Your task to perform on an android device: empty trash in google photos Image 0: 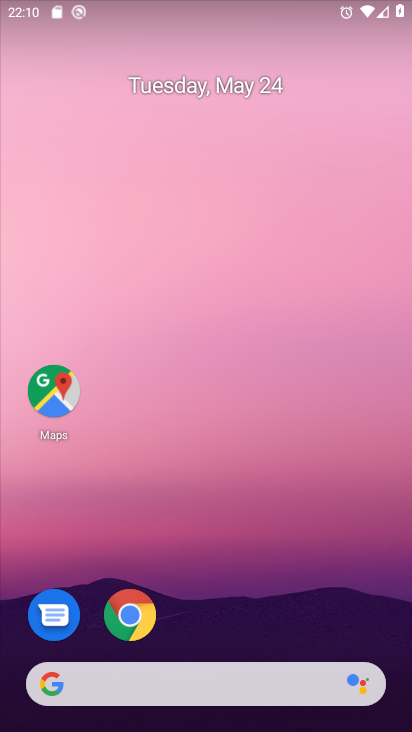
Step 0: drag from (239, 498) to (239, 200)
Your task to perform on an android device: empty trash in google photos Image 1: 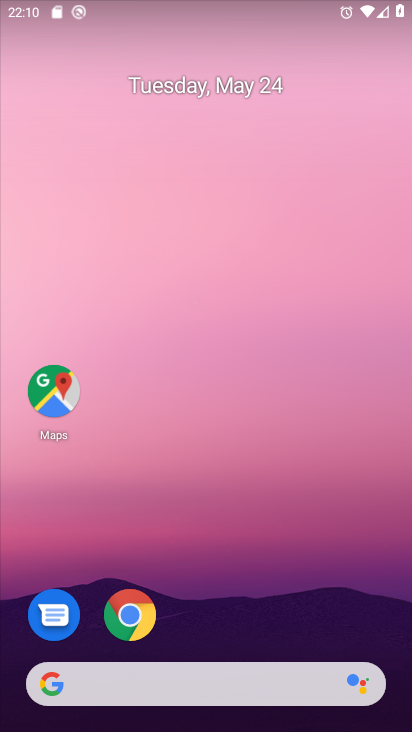
Step 1: drag from (217, 492) to (252, 231)
Your task to perform on an android device: empty trash in google photos Image 2: 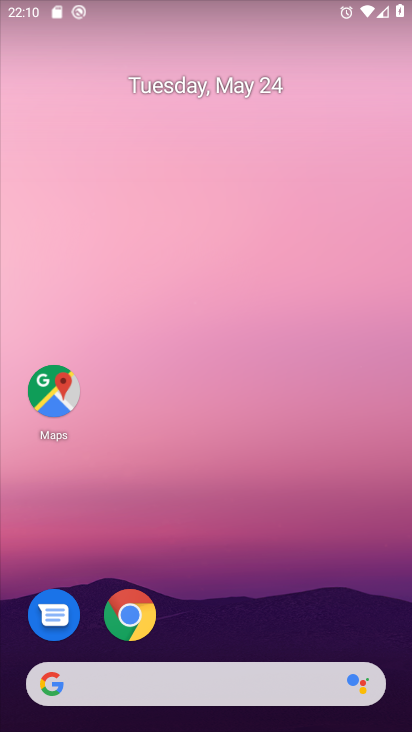
Step 2: drag from (228, 647) to (270, 169)
Your task to perform on an android device: empty trash in google photos Image 3: 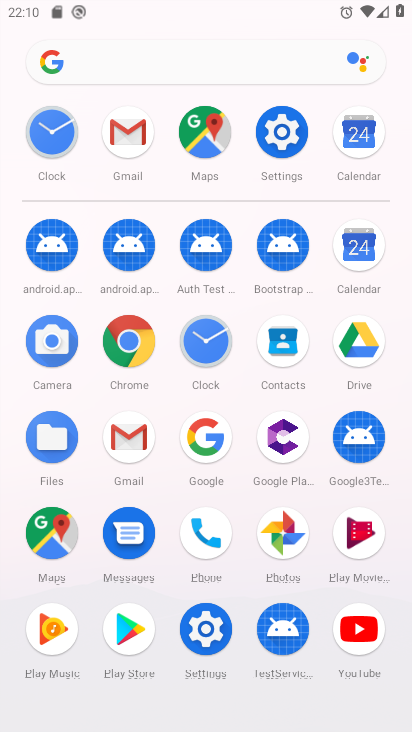
Step 3: click (278, 538)
Your task to perform on an android device: empty trash in google photos Image 4: 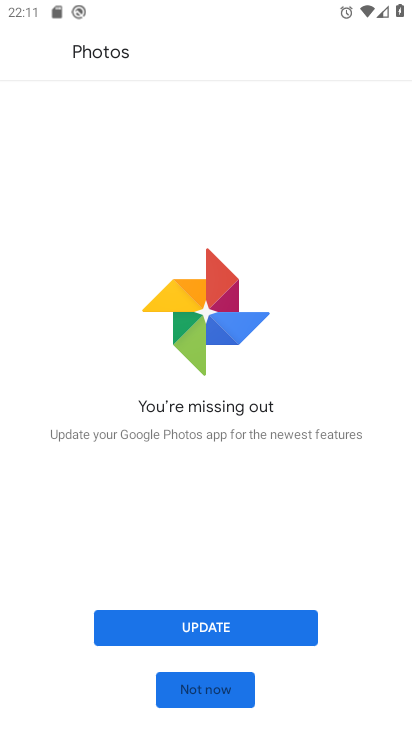
Step 4: click (215, 689)
Your task to perform on an android device: empty trash in google photos Image 5: 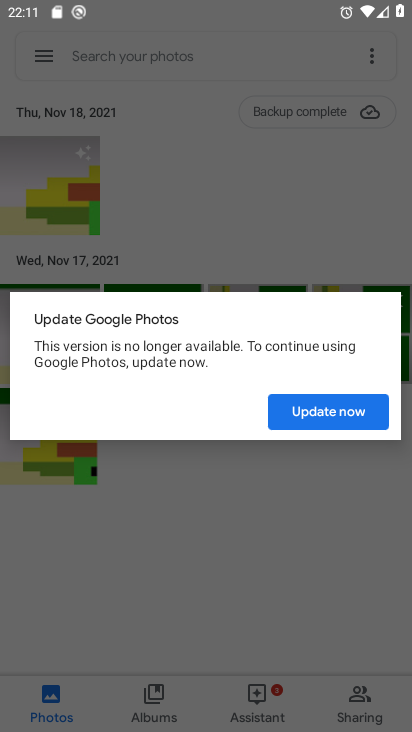
Step 5: click (312, 411)
Your task to perform on an android device: empty trash in google photos Image 6: 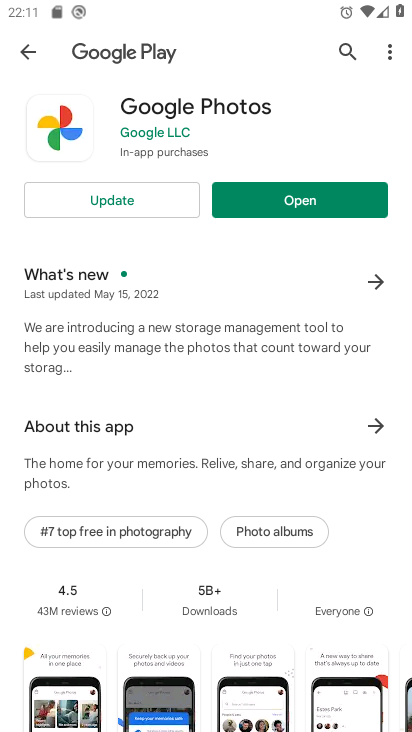
Step 6: press back button
Your task to perform on an android device: empty trash in google photos Image 7: 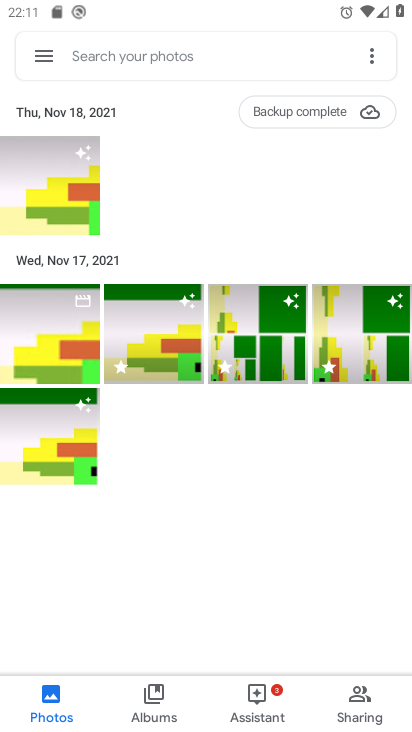
Step 7: click (37, 59)
Your task to perform on an android device: empty trash in google photos Image 8: 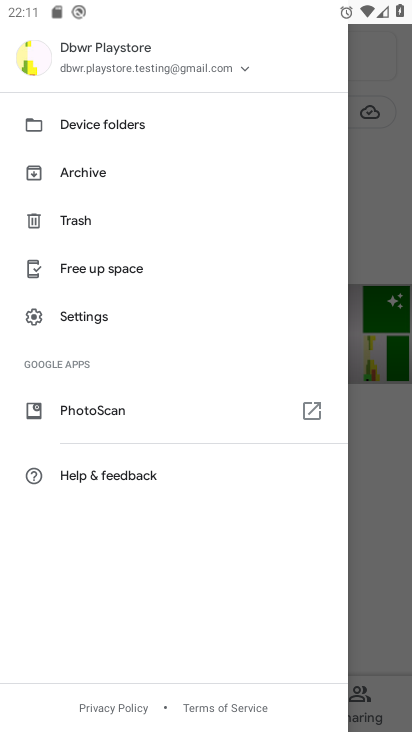
Step 8: click (97, 220)
Your task to perform on an android device: empty trash in google photos Image 9: 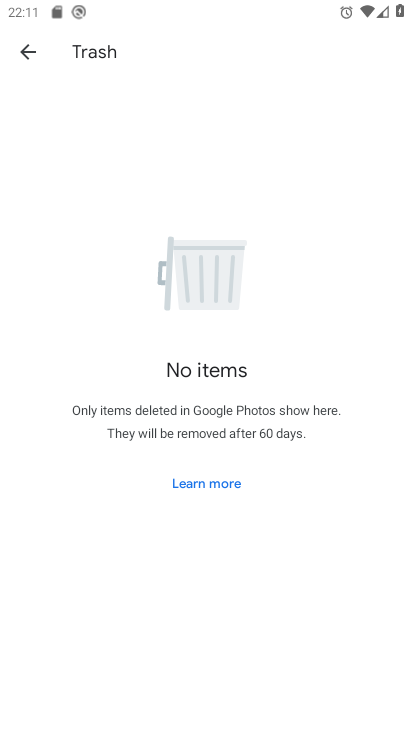
Step 9: task complete